Your task to perform on an android device: change notification settings in the gmail app Image 0: 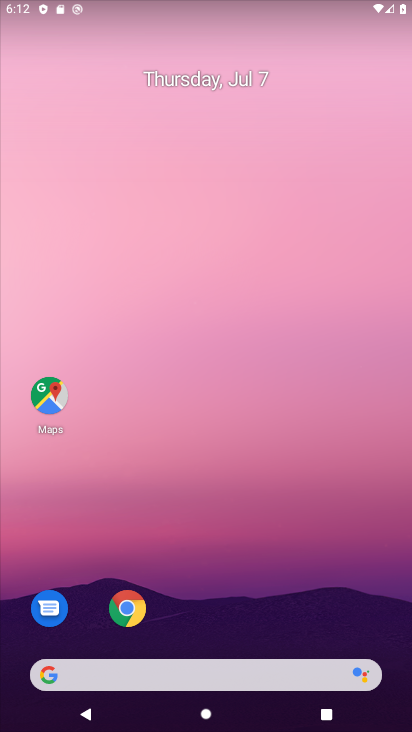
Step 0: drag from (219, 628) to (269, 4)
Your task to perform on an android device: change notification settings in the gmail app Image 1: 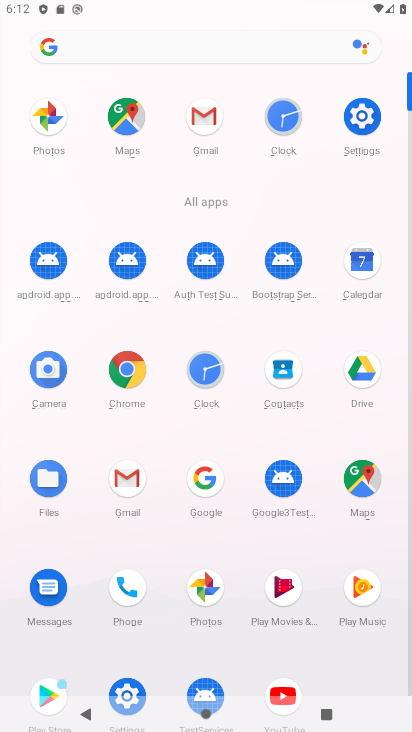
Step 1: click (206, 109)
Your task to perform on an android device: change notification settings in the gmail app Image 2: 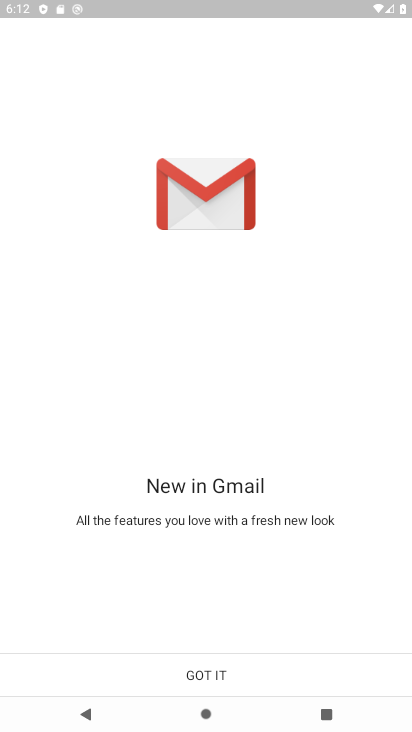
Step 2: click (215, 681)
Your task to perform on an android device: change notification settings in the gmail app Image 3: 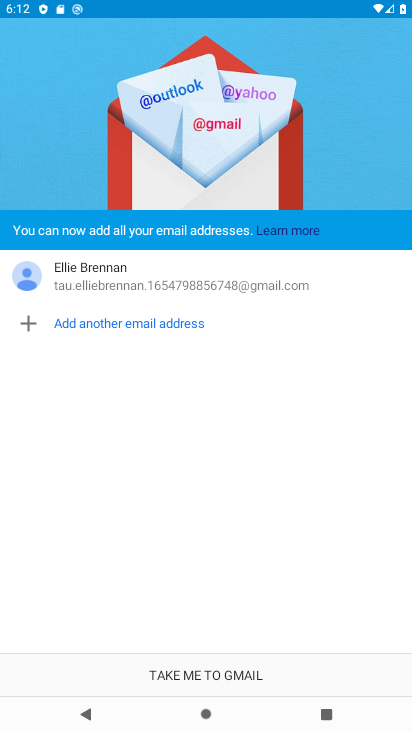
Step 3: click (196, 676)
Your task to perform on an android device: change notification settings in the gmail app Image 4: 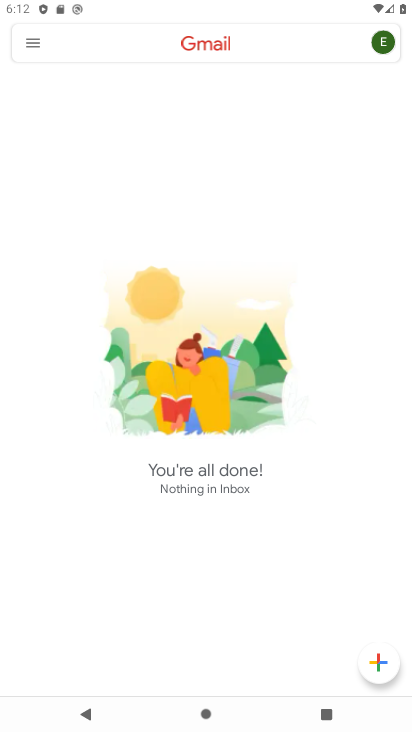
Step 4: click (31, 41)
Your task to perform on an android device: change notification settings in the gmail app Image 5: 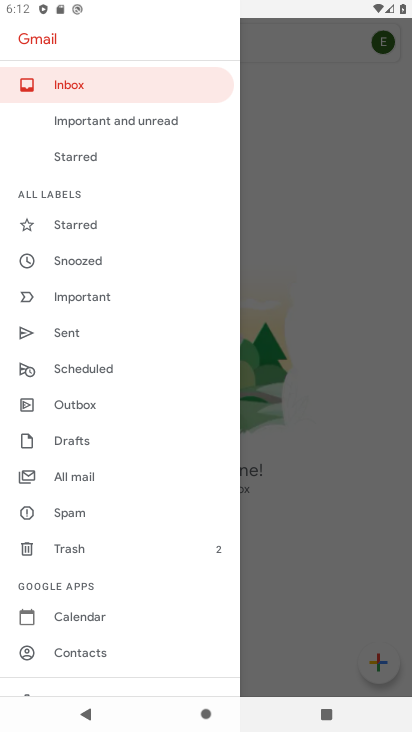
Step 5: drag from (88, 608) to (119, 98)
Your task to perform on an android device: change notification settings in the gmail app Image 6: 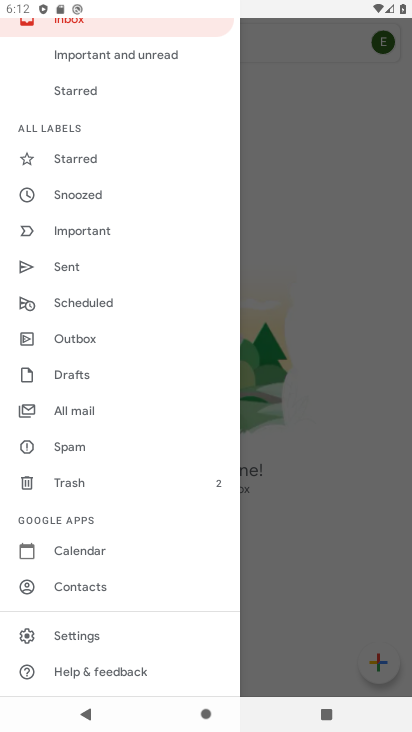
Step 6: click (97, 630)
Your task to perform on an android device: change notification settings in the gmail app Image 7: 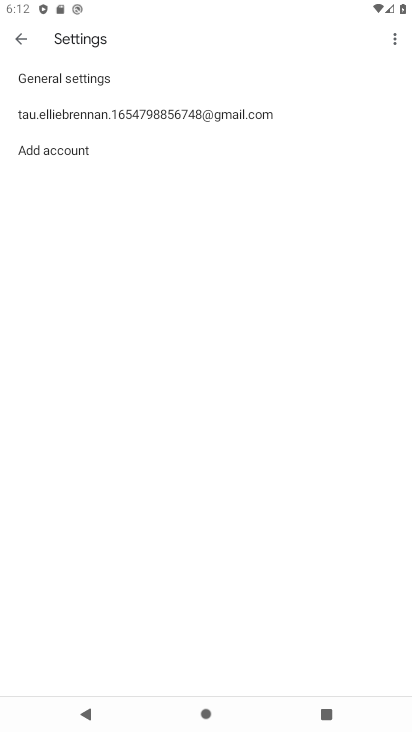
Step 7: click (108, 105)
Your task to perform on an android device: change notification settings in the gmail app Image 8: 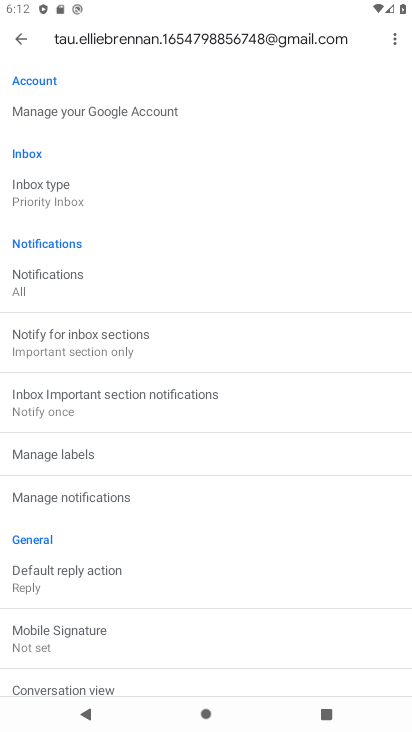
Step 8: click (75, 502)
Your task to perform on an android device: change notification settings in the gmail app Image 9: 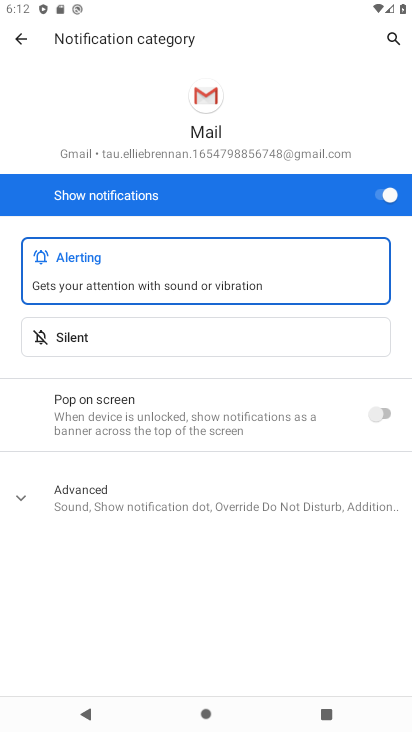
Step 9: click (383, 411)
Your task to perform on an android device: change notification settings in the gmail app Image 10: 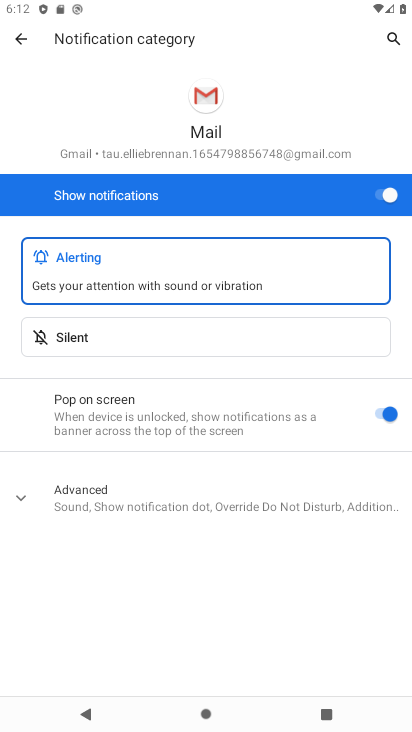
Step 10: task complete